Your task to perform on an android device: open wifi settings Image 0: 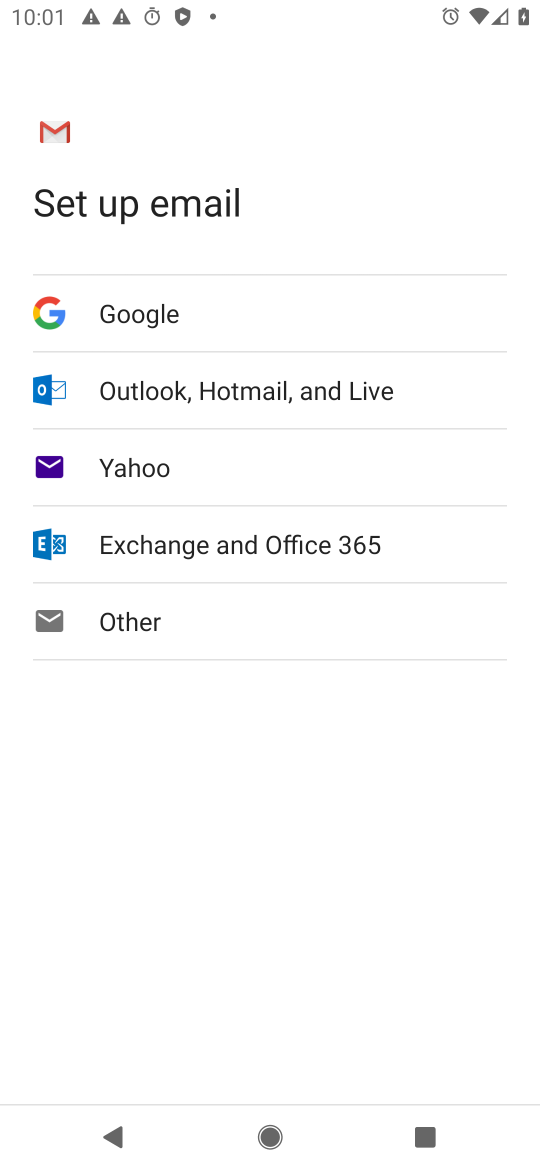
Step 0: press home button
Your task to perform on an android device: open wifi settings Image 1: 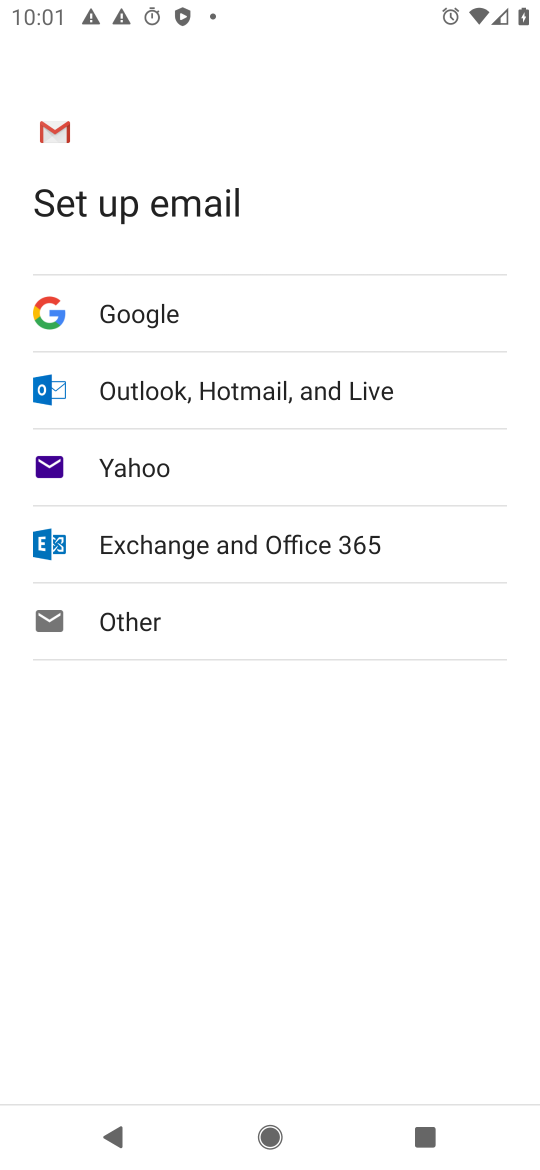
Step 1: drag from (338, 971) to (410, 214)
Your task to perform on an android device: open wifi settings Image 2: 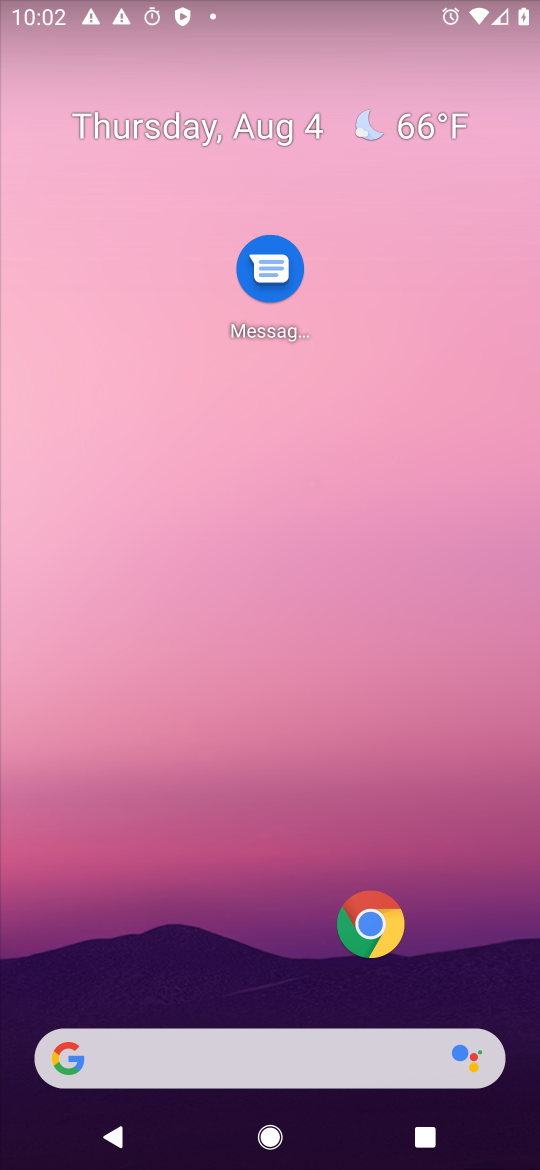
Step 2: drag from (263, 796) to (360, 102)
Your task to perform on an android device: open wifi settings Image 3: 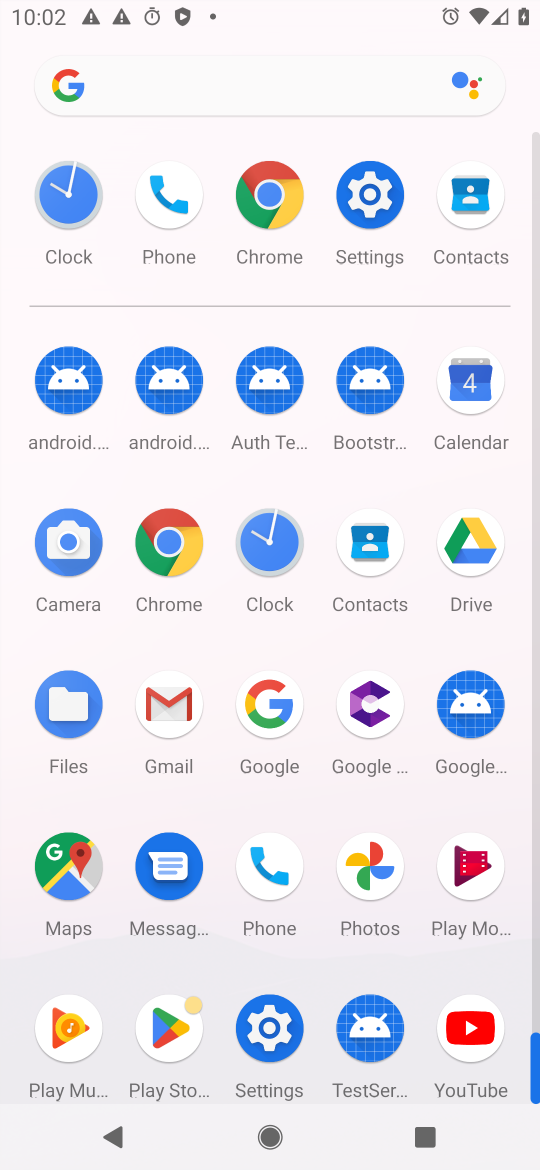
Step 3: click (261, 1036)
Your task to perform on an android device: open wifi settings Image 4: 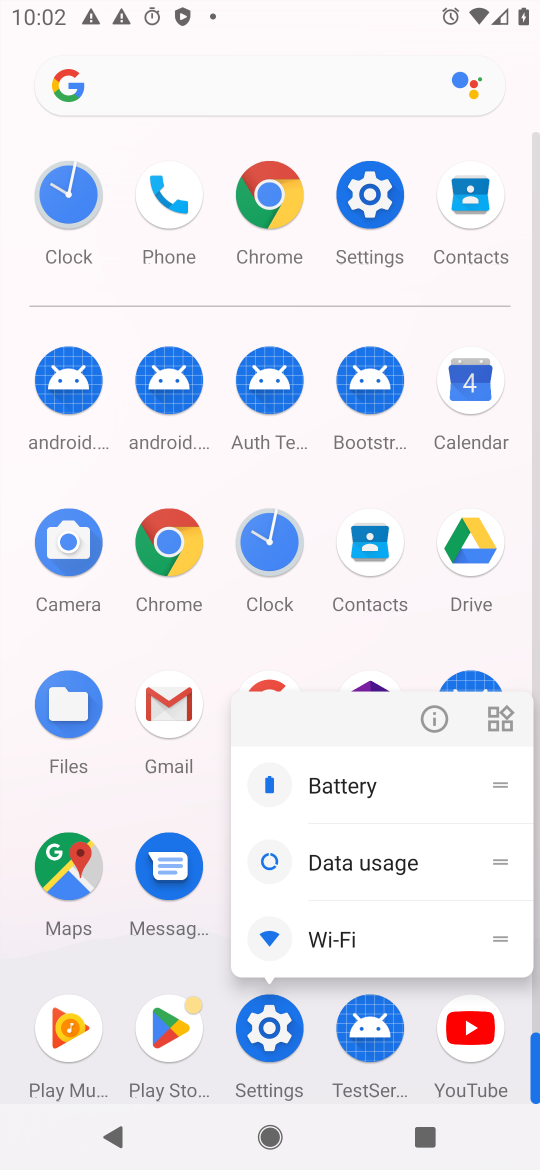
Step 4: click (415, 708)
Your task to perform on an android device: open wifi settings Image 5: 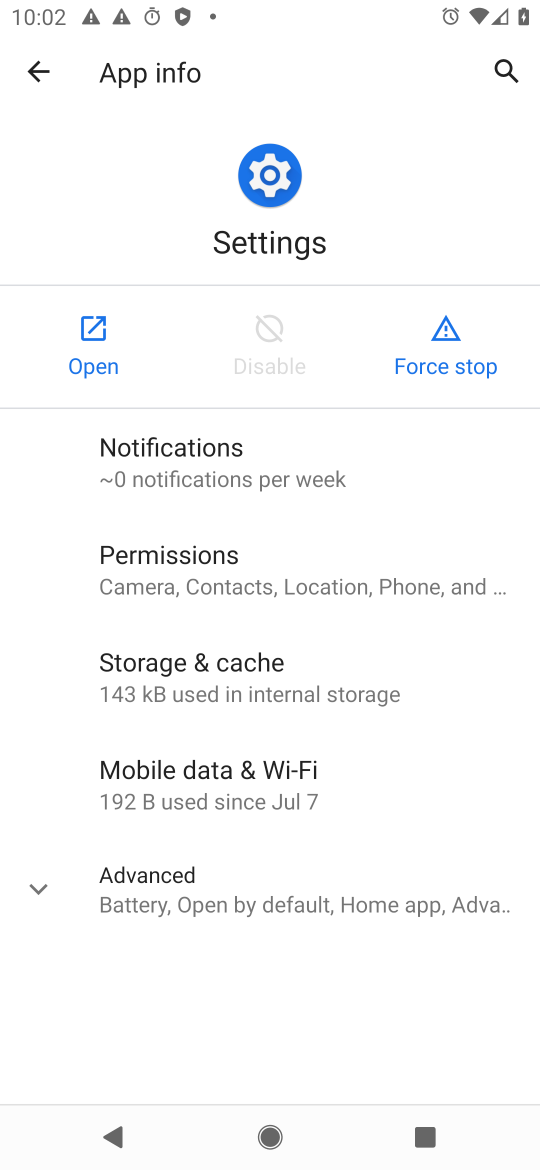
Step 5: click (88, 349)
Your task to perform on an android device: open wifi settings Image 6: 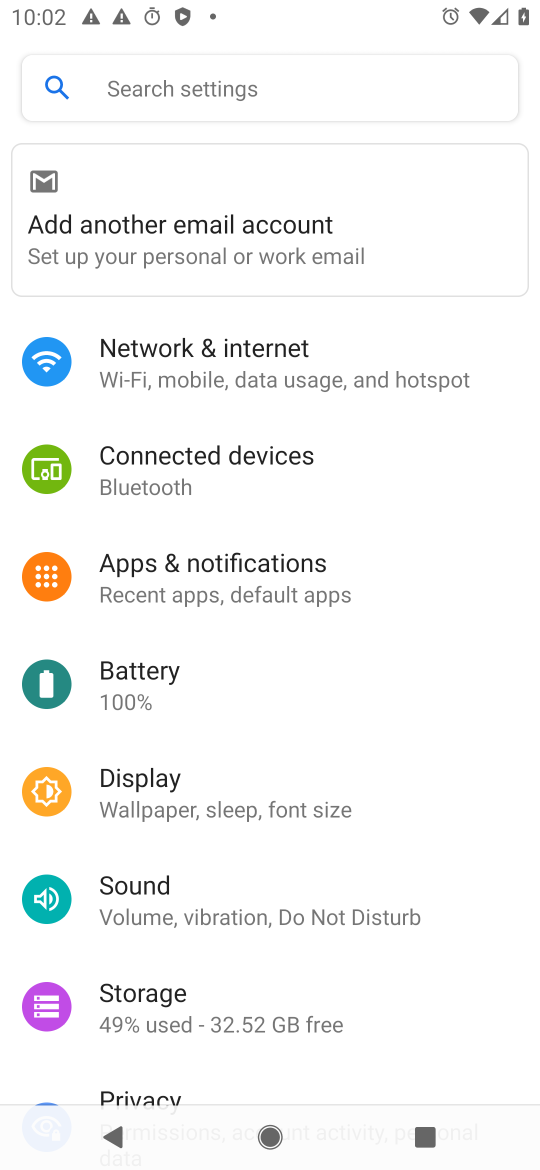
Step 6: click (177, 357)
Your task to perform on an android device: open wifi settings Image 7: 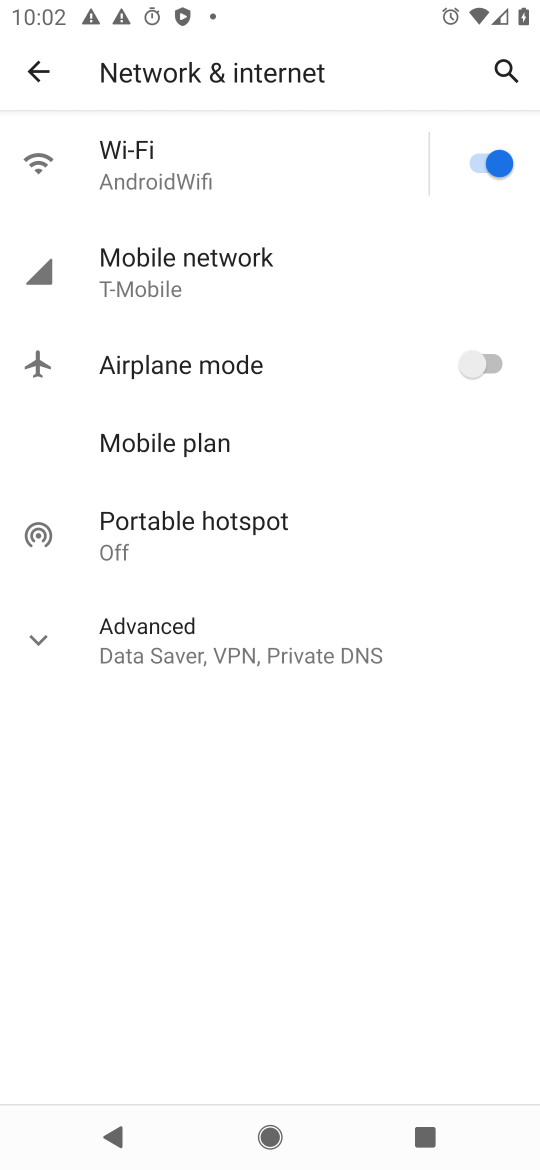
Step 7: click (216, 163)
Your task to perform on an android device: open wifi settings Image 8: 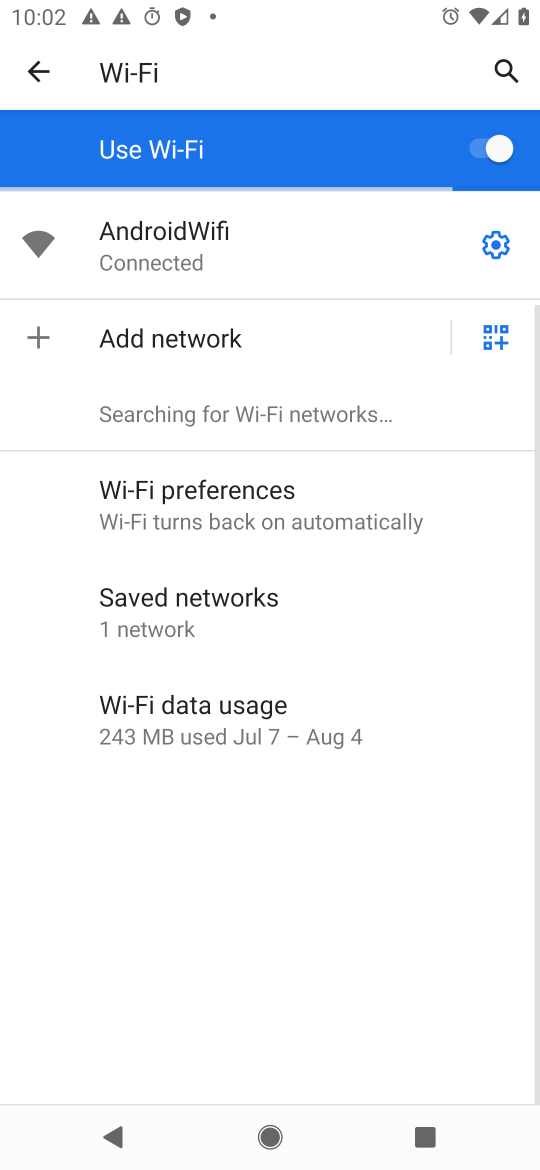
Step 8: click (498, 255)
Your task to perform on an android device: open wifi settings Image 9: 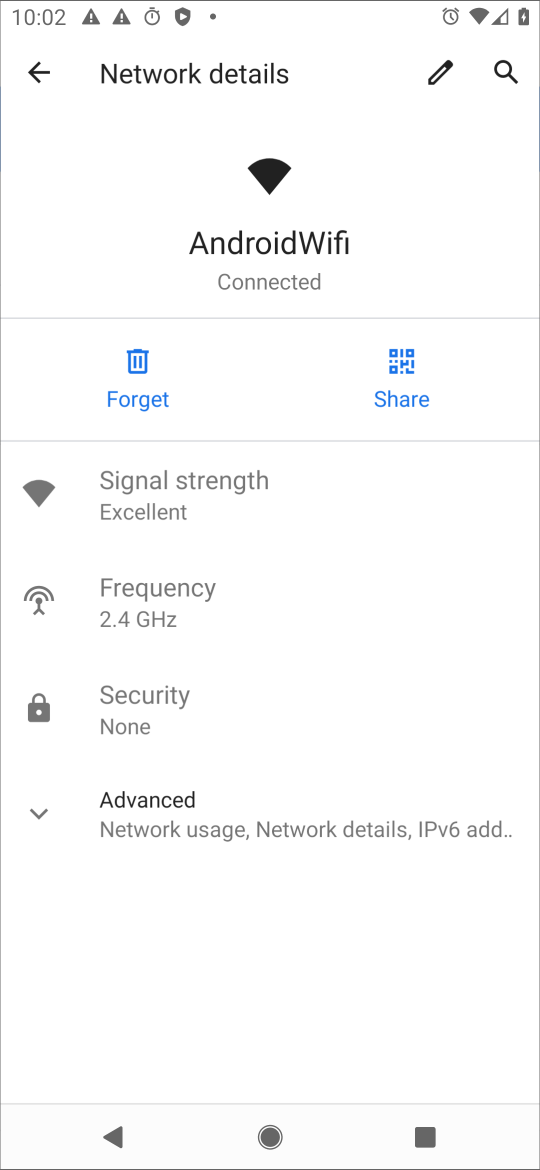
Step 9: task complete